Your task to perform on an android device: Open the calendar app, open the side menu, and click the "Day" option Image 0: 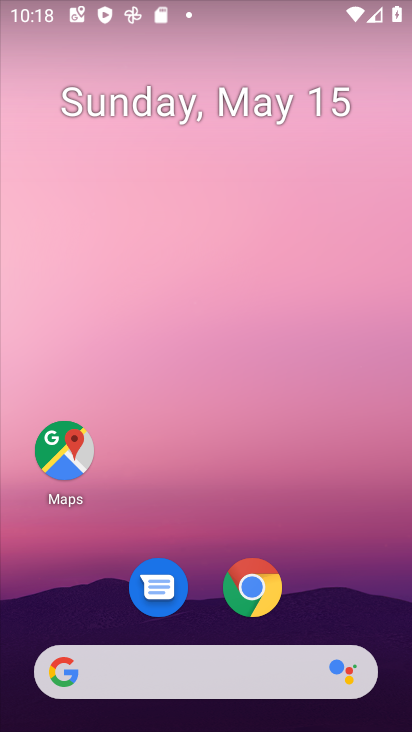
Step 0: drag from (370, 622) to (307, 94)
Your task to perform on an android device: Open the calendar app, open the side menu, and click the "Day" option Image 1: 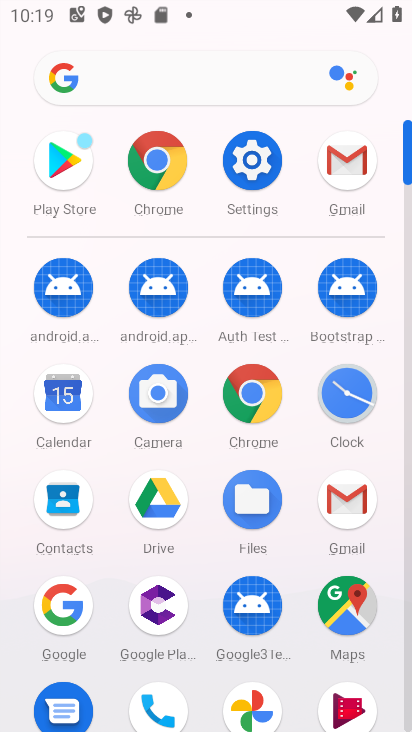
Step 1: click (69, 414)
Your task to perform on an android device: Open the calendar app, open the side menu, and click the "Day" option Image 2: 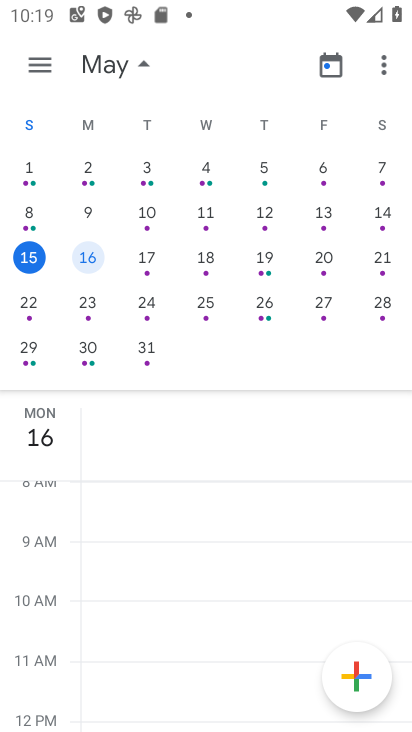
Step 2: click (26, 59)
Your task to perform on an android device: Open the calendar app, open the side menu, and click the "Day" option Image 3: 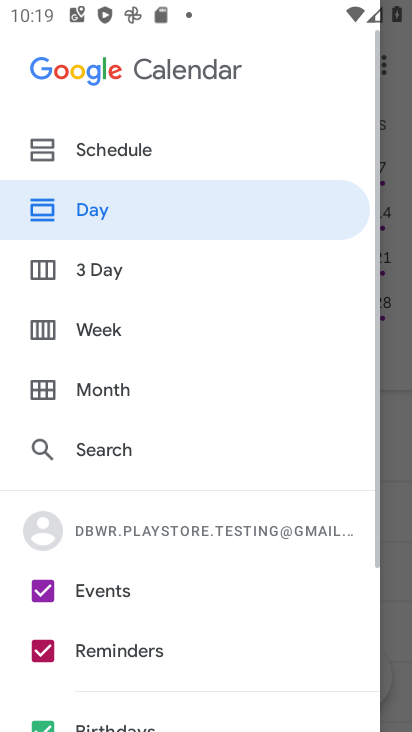
Step 3: click (153, 226)
Your task to perform on an android device: Open the calendar app, open the side menu, and click the "Day" option Image 4: 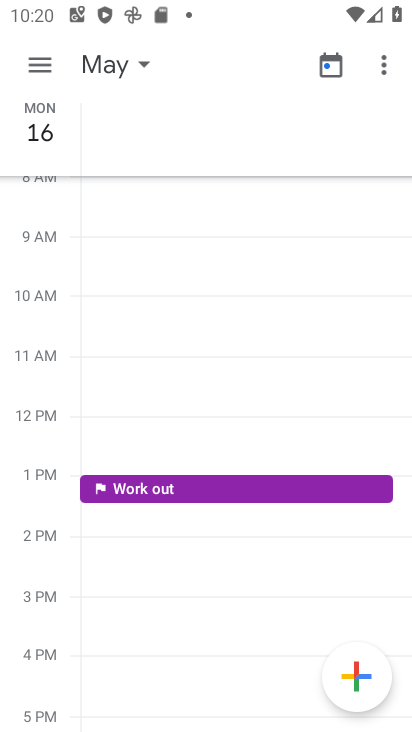
Step 4: task complete